Your task to perform on an android device: toggle translation in the chrome app Image 0: 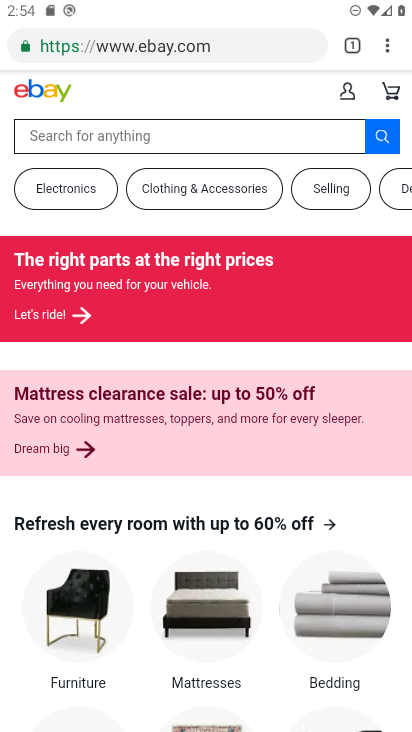
Step 0: drag from (385, 35) to (251, 549)
Your task to perform on an android device: toggle translation in the chrome app Image 1: 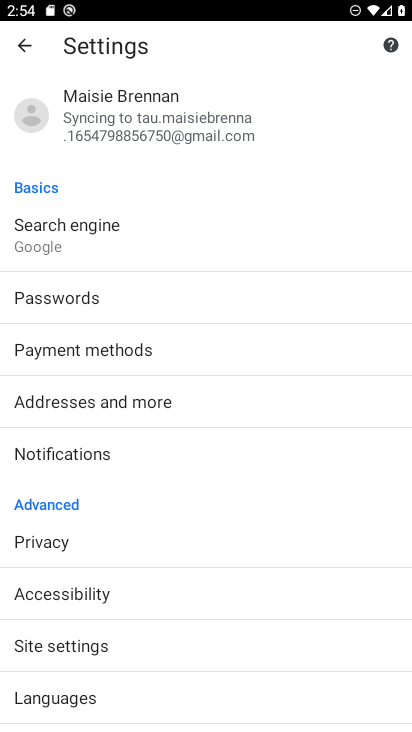
Step 1: click (70, 700)
Your task to perform on an android device: toggle translation in the chrome app Image 2: 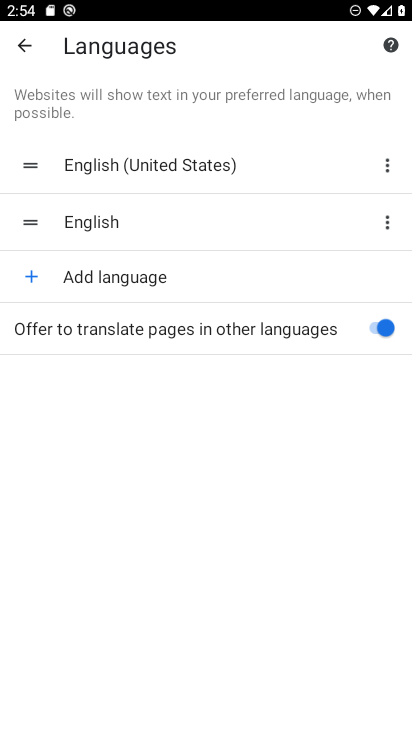
Step 2: click (381, 325)
Your task to perform on an android device: toggle translation in the chrome app Image 3: 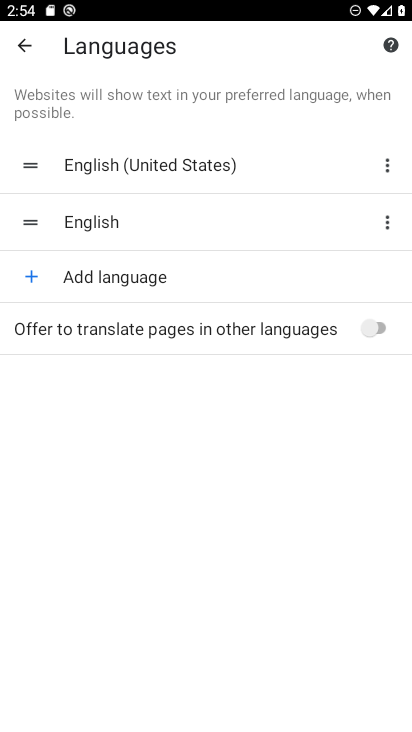
Step 3: task complete